Your task to perform on an android device: create a new album in the google photos Image 0: 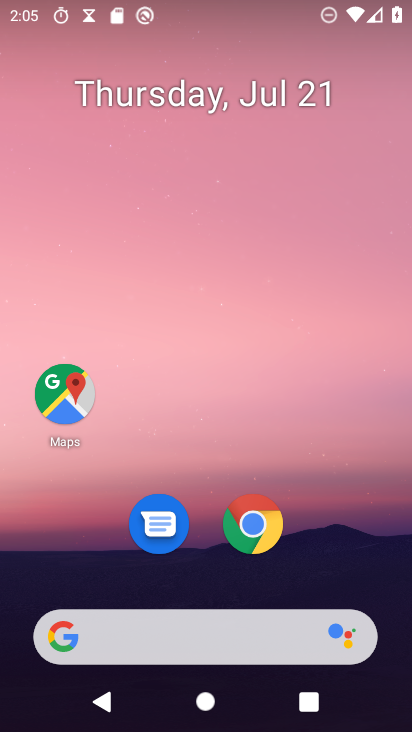
Step 0: press home button
Your task to perform on an android device: create a new album in the google photos Image 1: 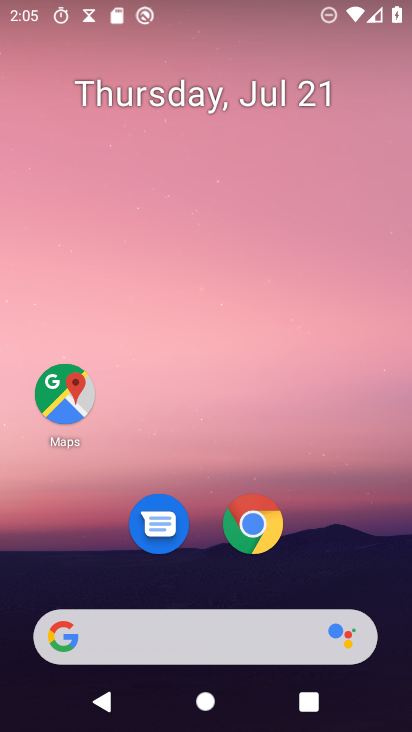
Step 1: drag from (219, 631) to (266, 93)
Your task to perform on an android device: create a new album in the google photos Image 2: 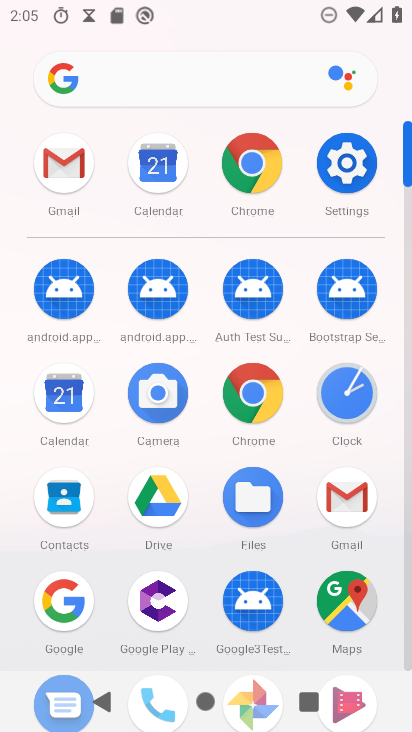
Step 2: drag from (182, 559) to (262, 160)
Your task to perform on an android device: create a new album in the google photos Image 3: 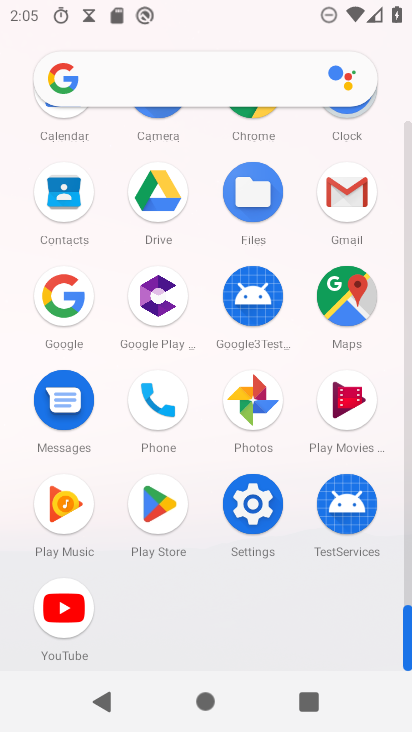
Step 3: click (253, 404)
Your task to perform on an android device: create a new album in the google photos Image 4: 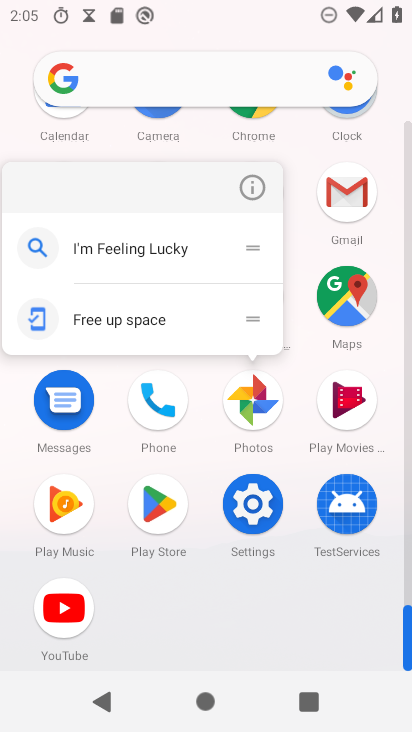
Step 4: click (257, 400)
Your task to perform on an android device: create a new album in the google photos Image 5: 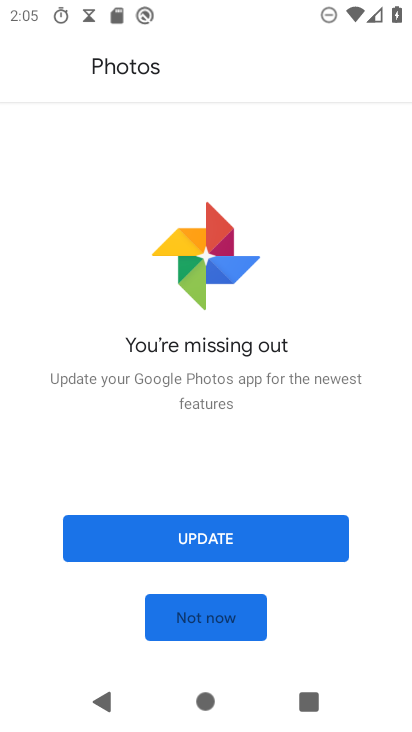
Step 5: click (173, 619)
Your task to perform on an android device: create a new album in the google photos Image 6: 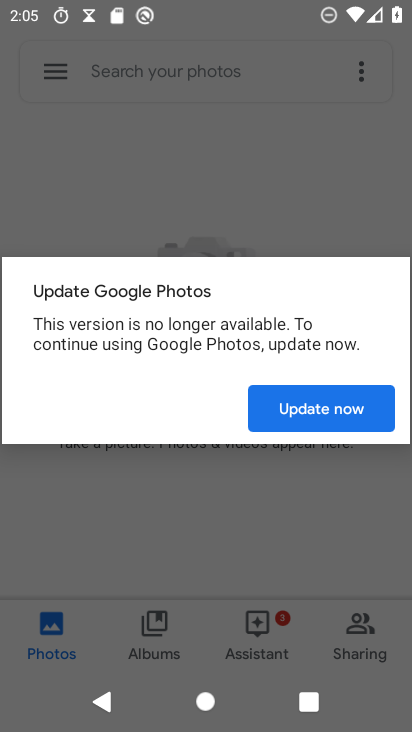
Step 6: click (318, 405)
Your task to perform on an android device: create a new album in the google photos Image 7: 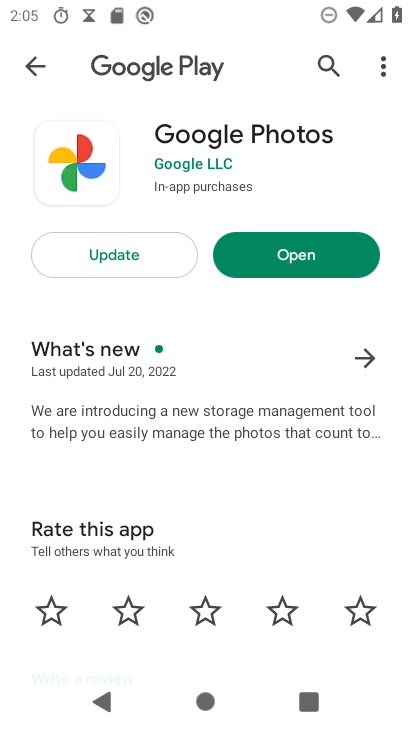
Step 7: click (286, 258)
Your task to perform on an android device: create a new album in the google photos Image 8: 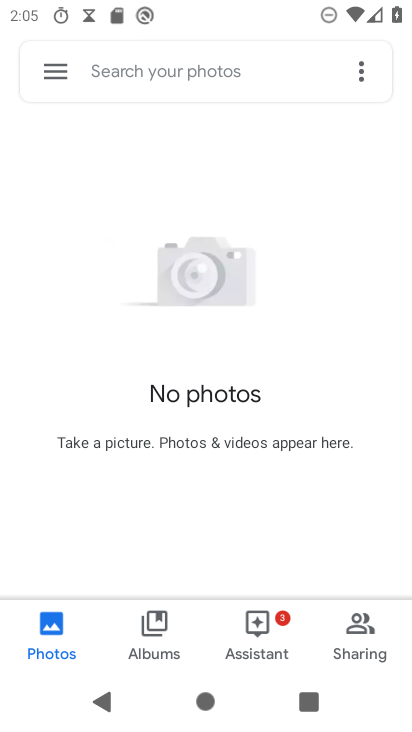
Step 8: click (146, 636)
Your task to perform on an android device: create a new album in the google photos Image 9: 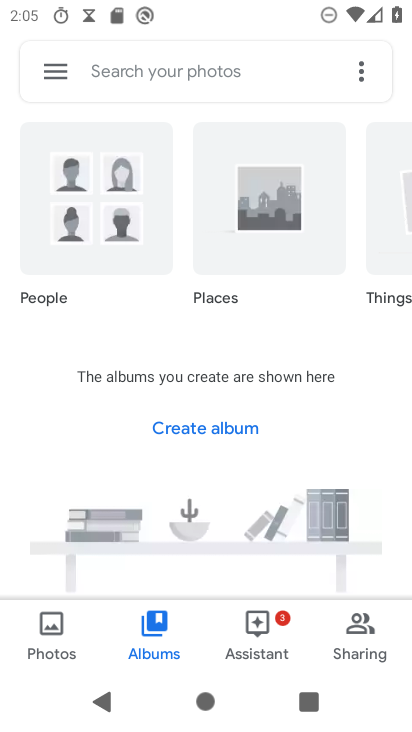
Step 9: task complete